Your task to perform on an android device: Open Google Chrome and click the shortcut for Amazon.com Image 0: 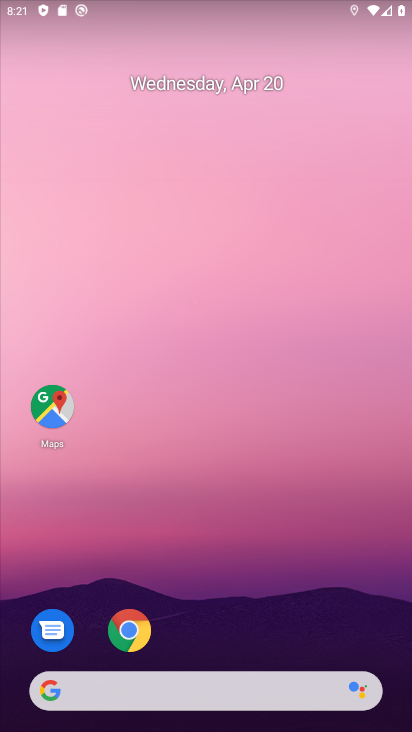
Step 0: click (121, 635)
Your task to perform on an android device: Open Google Chrome and click the shortcut for Amazon.com Image 1: 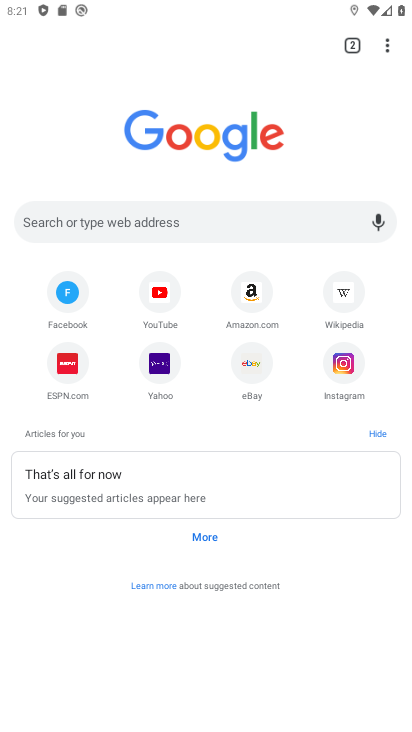
Step 1: click (258, 294)
Your task to perform on an android device: Open Google Chrome and click the shortcut for Amazon.com Image 2: 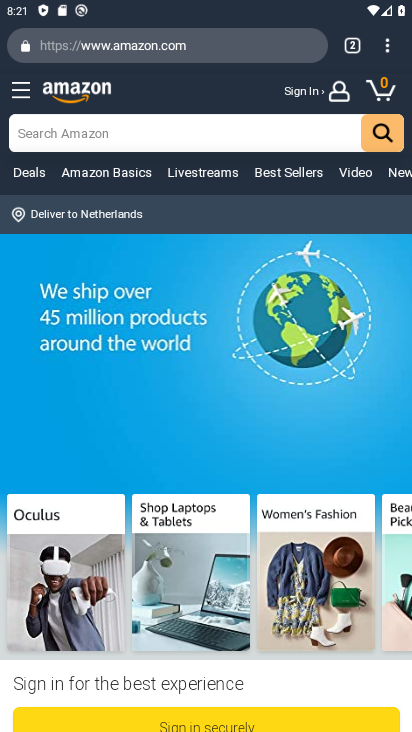
Step 2: task complete